Your task to perform on an android device: turn on bluetooth scan Image 0: 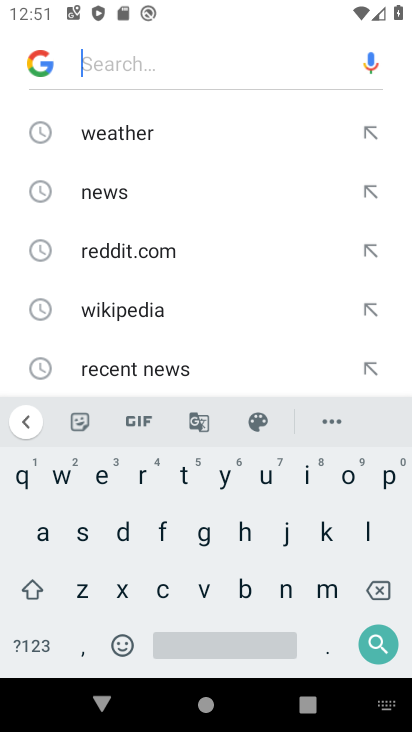
Step 0: press home button
Your task to perform on an android device: turn on bluetooth scan Image 1: 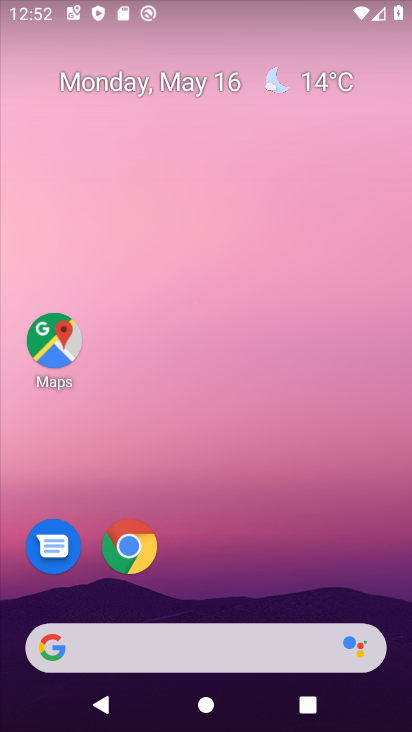
Step 1: drag from (253, 672) to (298, 150)
Your task to perform on an android device: turn on bluetooth scan Image 2: 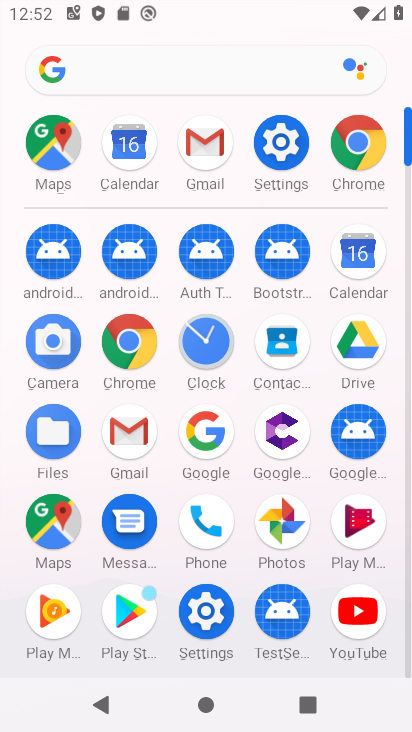
Step 2: click (289, 156)
Your task to perform on an android device: turn on bluetooth scan Image 3: 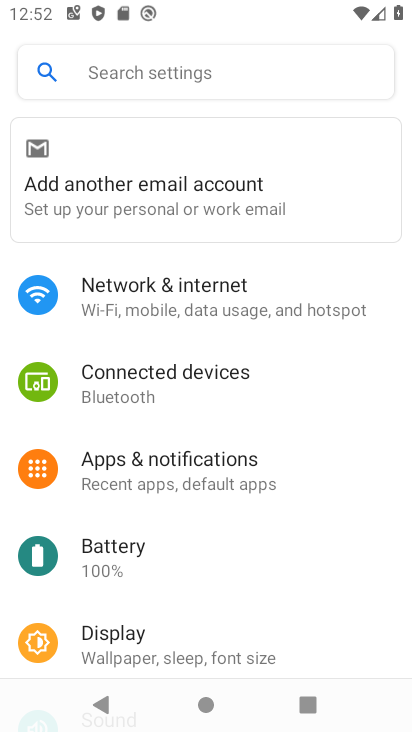
Step 3: click (179, 80)
Your task to perform on an android device: turn on bluetooth scan Image 4: 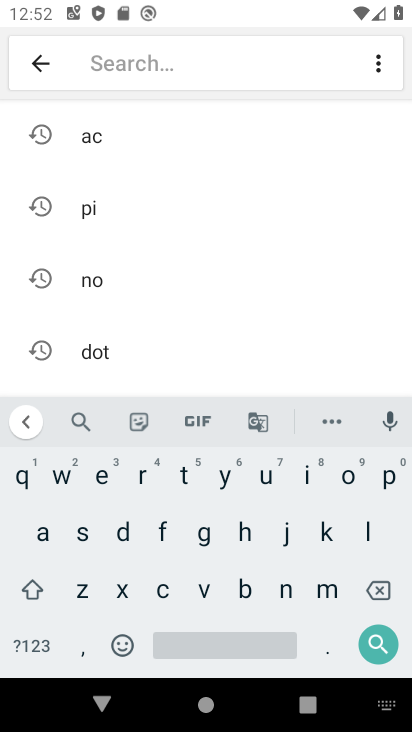
Step 4: click (369, 535)
Your task to perform on an android device: turn on bluetooth scan Image 5: 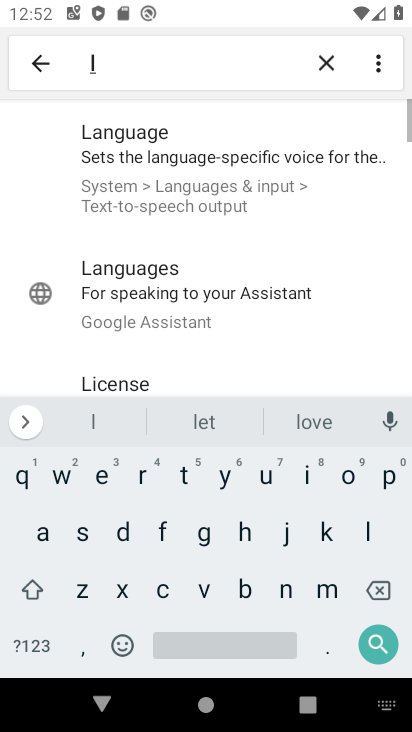
Step 5: click (349, 477)
Your task to perform on an android device: turn on bluetooth scan Image 6: 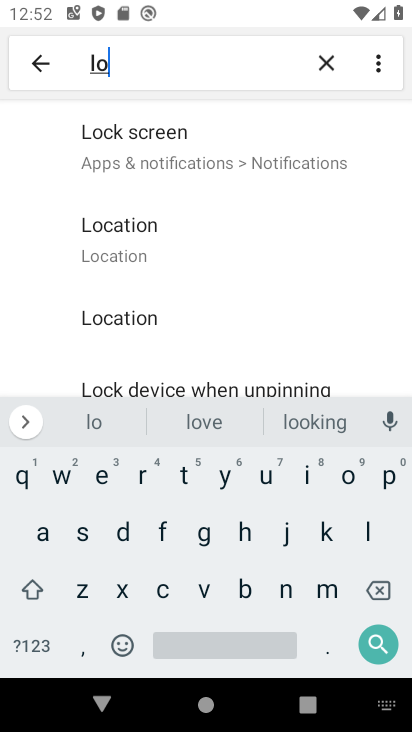
Step 6: click (147, 241)
Your task to perform on an android device: turn on bluetooth scan Image 7: 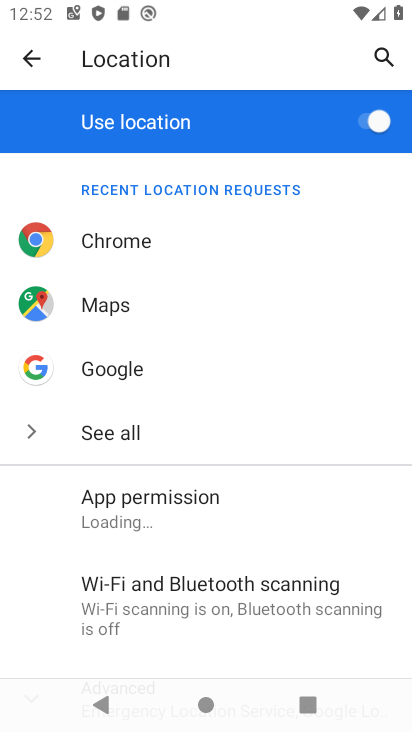
Step 7: click (213, 596)
Your task to perform on an android device: turn on bluetooth scan Image 8: 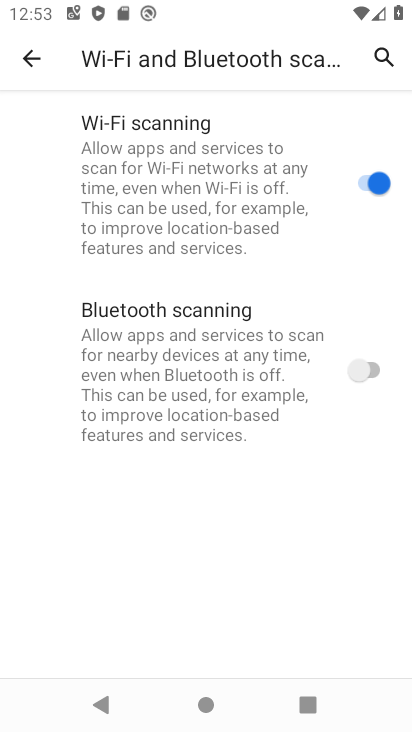
Step 8: click (348, 376)
Your task to perform on an android device: turn on bluetooth scan Image 9: 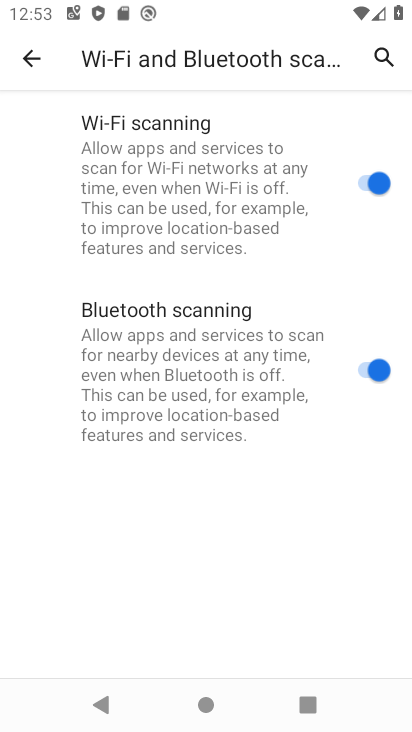
Step 9: task complete